Your task to perform on an android device: Go to battery settings Image 0: 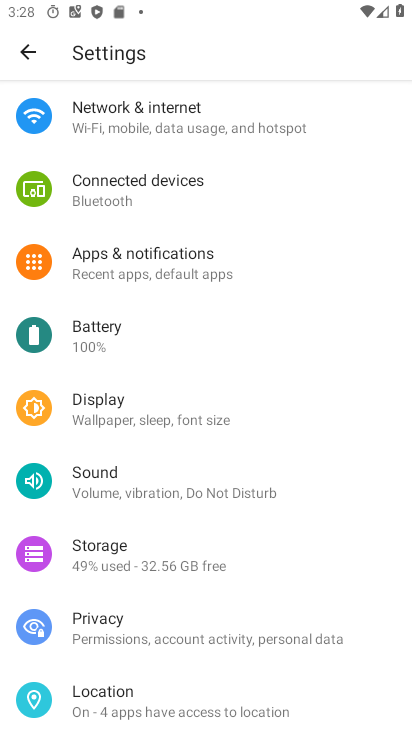
Step 0: click (120, 341)
Your task to perform on an android device: Go to battery settings Image 1: 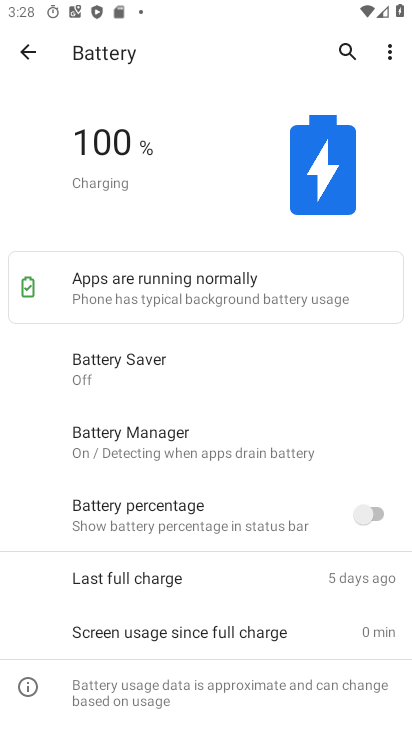
Step 1: task complete